Your task to perform on an android device: turn on bluetooth scan Image 0: 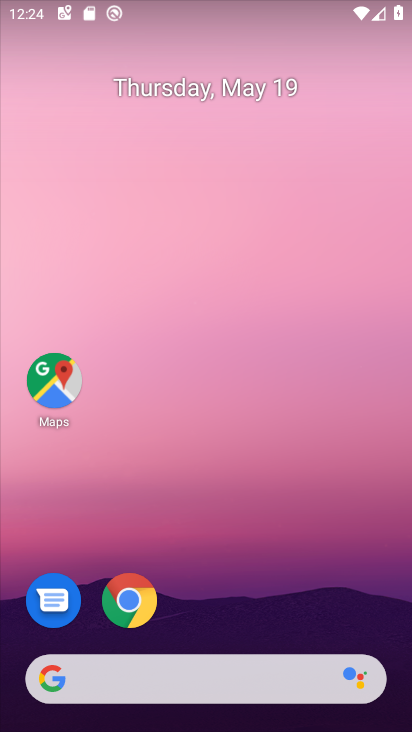
Step 0: drag from (277, 580) to (194, 53)
Your task to perform on an android device: turn on bluetooth scan Image 1: 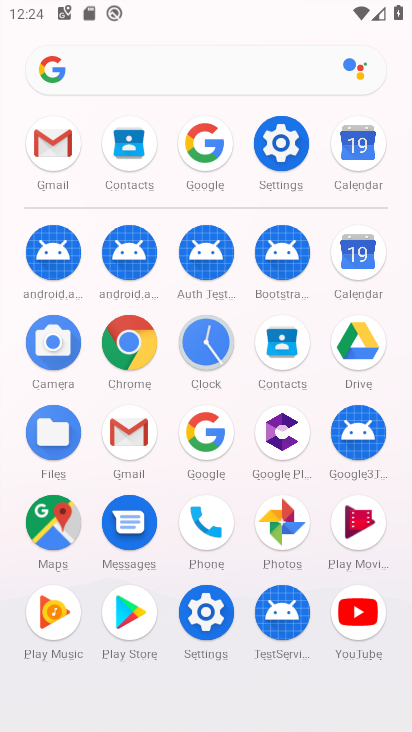
Step 1: click (297, 148)
Your task to perform on an android device: turn on bluetooth scan Image 2: 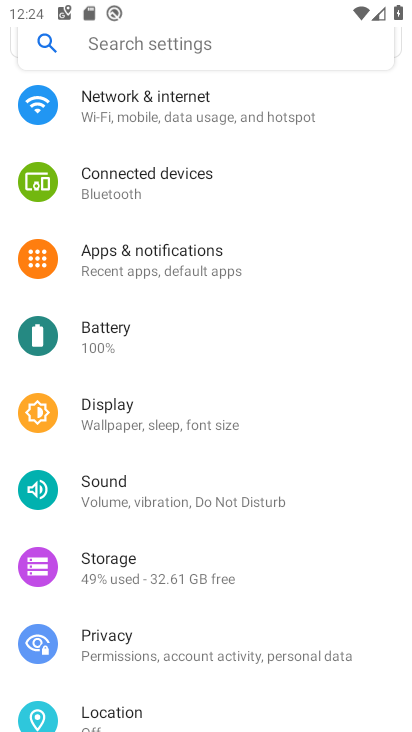
Step 2: drag from (303, 537) to (259, 291)
Your task to perform on an android device: turn on bluetooth scan Image 3: 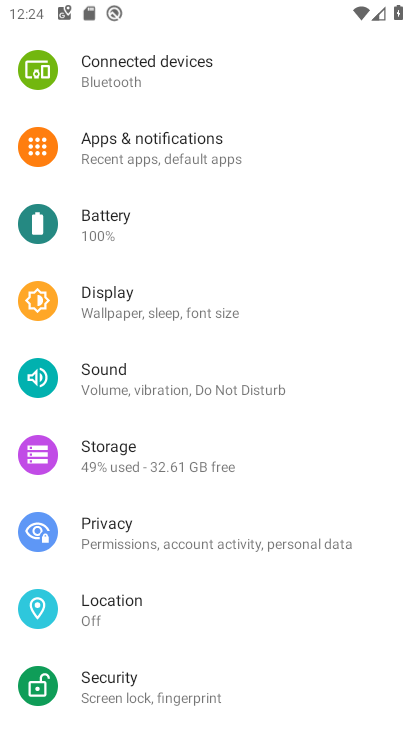
Step 3: click (160, 617)
Your task to perform on an android device: turn on bluetooth scan Image 4: 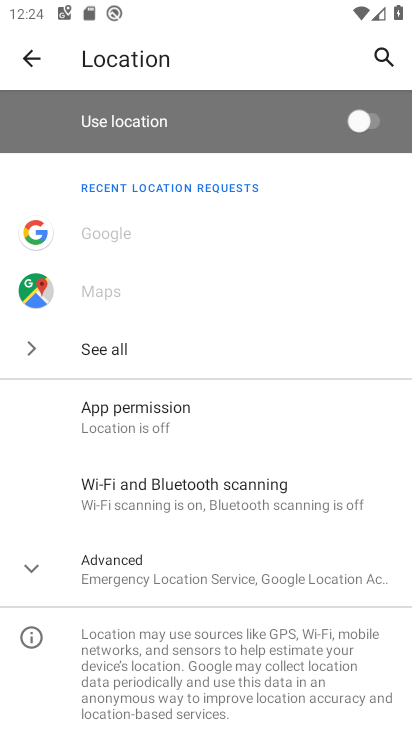
Step 4: click (312, 497)
Your task to perform on an android device: turn on bluetooth scan Image 5: 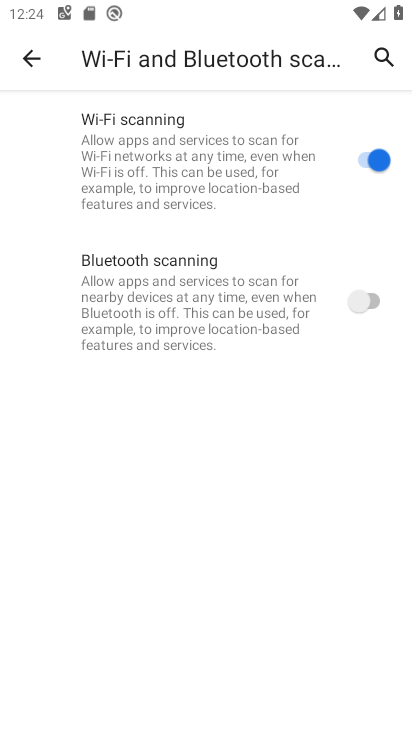
Step 5: click (367, 308)
Your task to perform on an android device: turn on bluetooth scan Image 6: 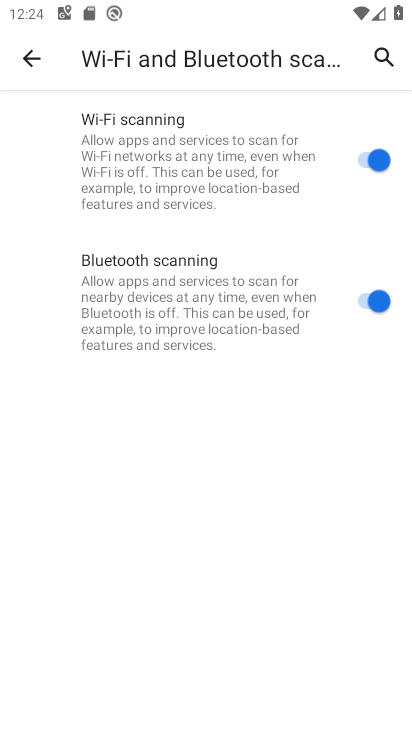
Step 6: task complete